Your task to perform on an android device: Open Google Maps Image 0: 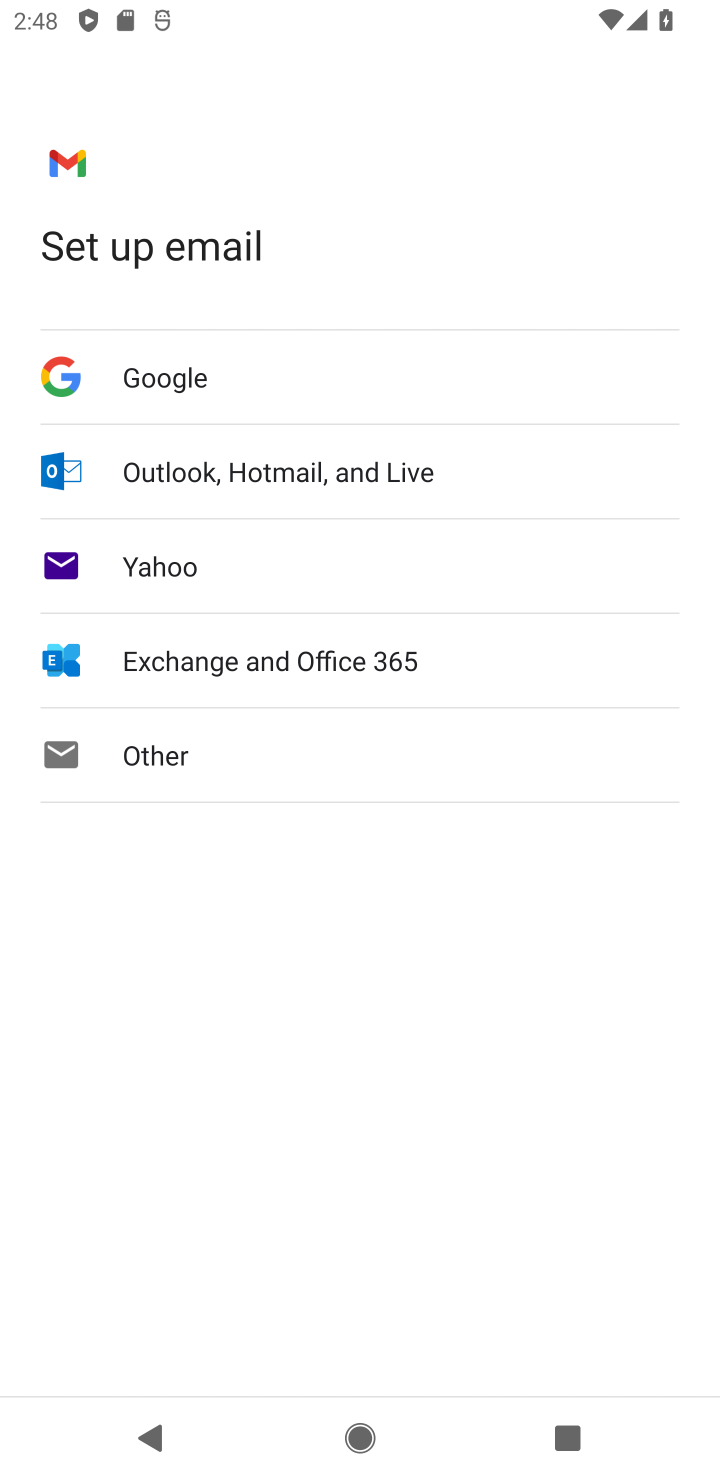
Step 0: press home button
Your task to perform on an android device: Open Google Maps Image 1: 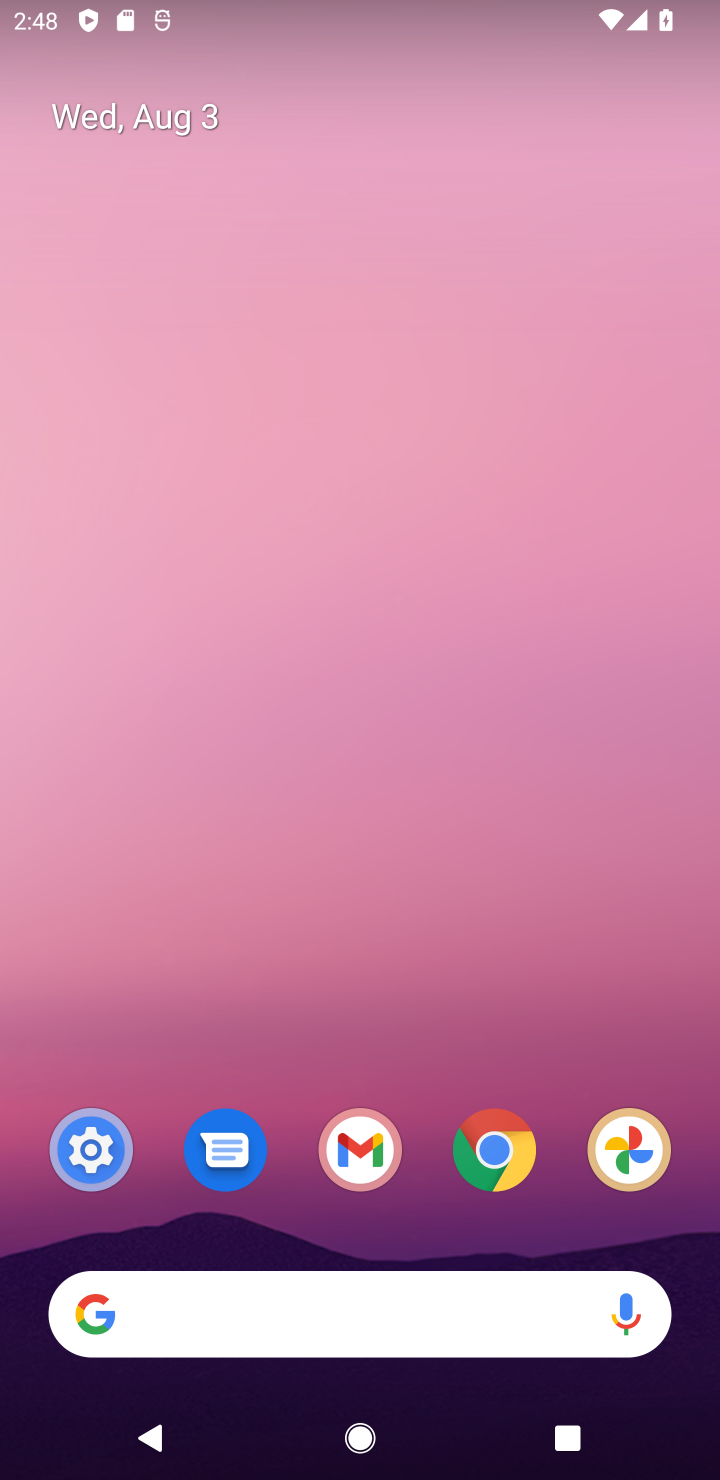
Step 1: drag from (381, 1201) to (347, 319)
Your task to perform on an android device: Open Google Maps Image 2: 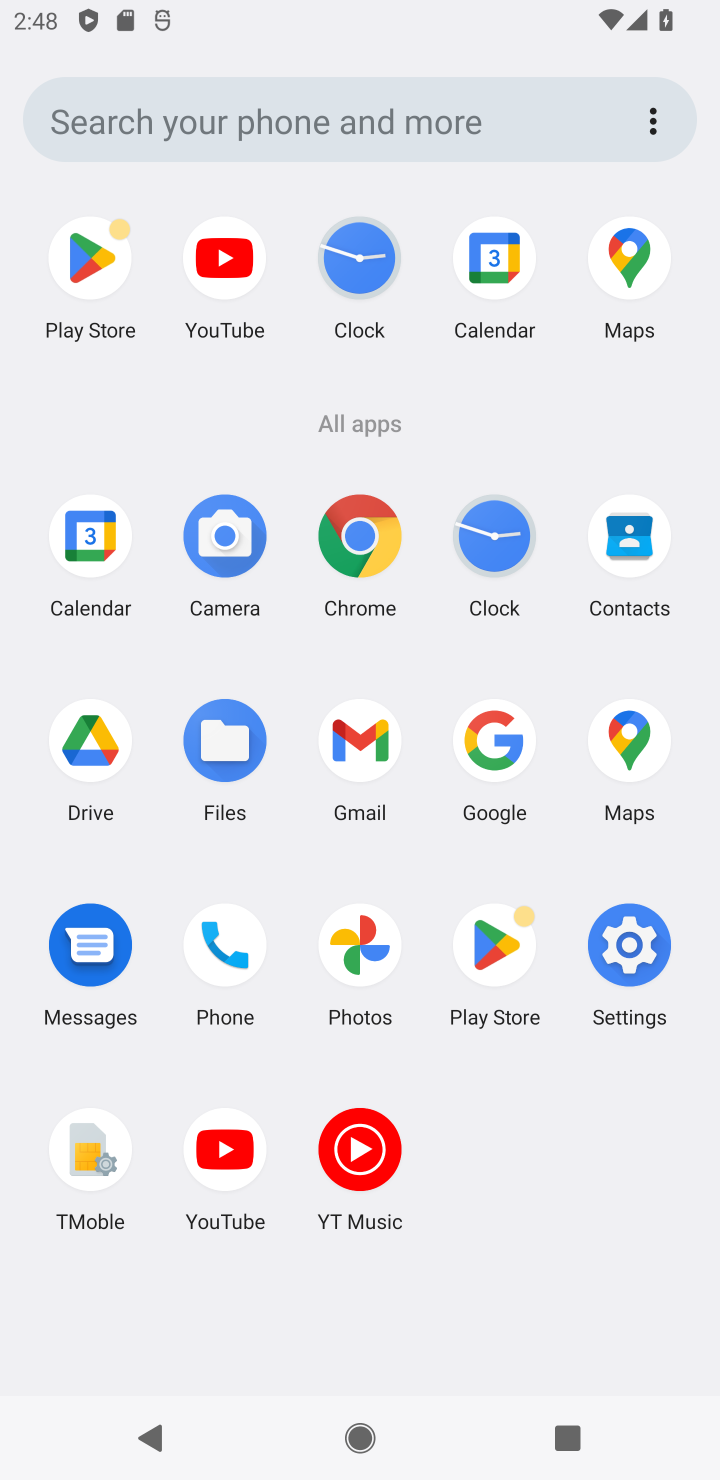
Step 2: click (642, 731)
Your task to perform on an android device: Open Google Maps Image 3: 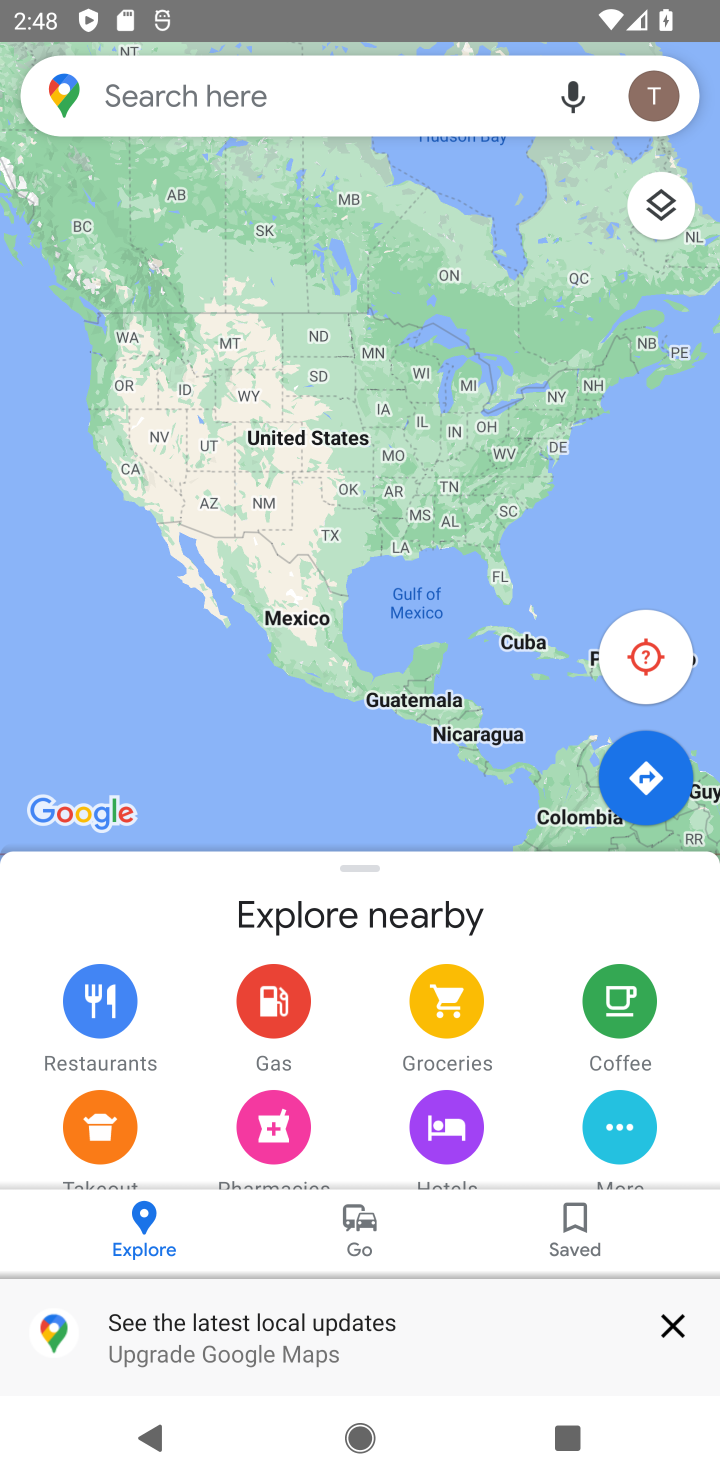
Step 3: task complete